Your task to perform on an android device: change text size in settings app Image 0: 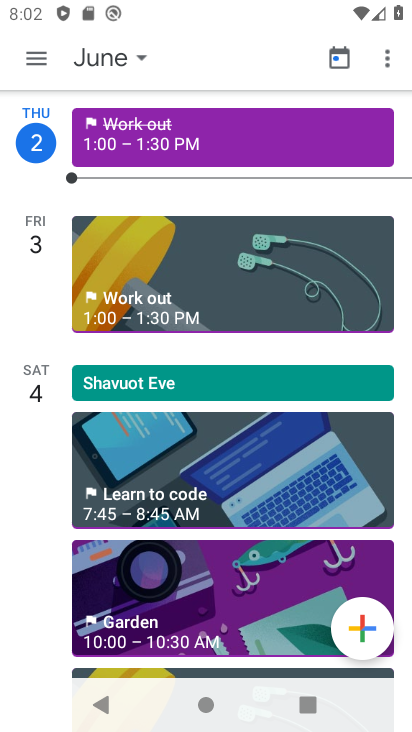
Step 0: click (252, 95)
Your task to perform on an android device: change text size in settings app Image 1: 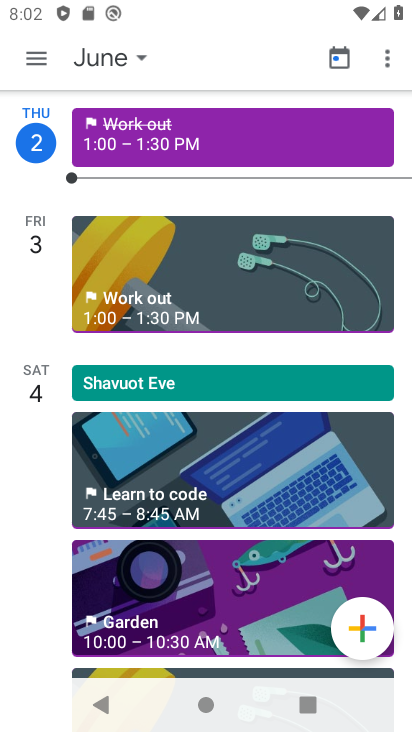
Step 1: press back button
Your task to perform on an android device: change text size in settings app Image 2: 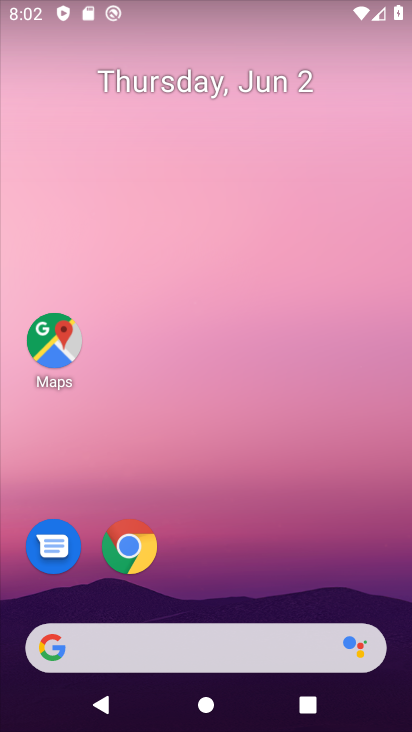
Step 2: drag from (268, 710) to (225, 196)
Your task to perform on an android device: change text size in settings app Image 3: 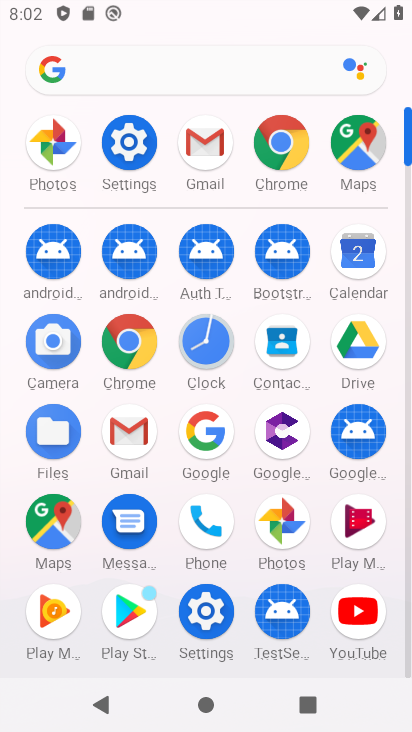
Step 3: click (116, 135)
Your task to perform on an android device: change text size in settings app Image 4: 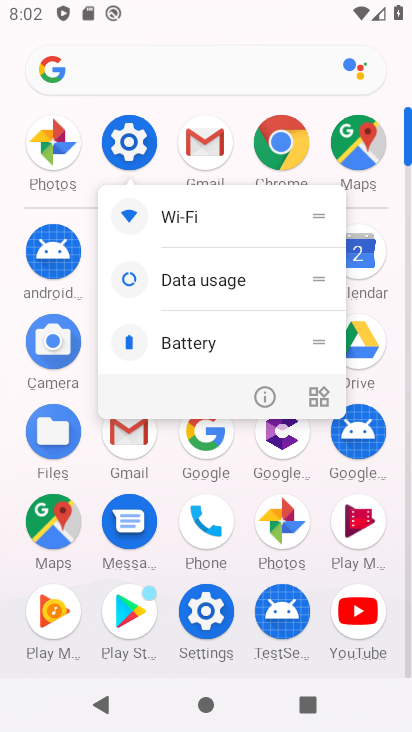
Step 4: click (115, 135)
Your task to perform on an android device: change text size in settings app Image 5: 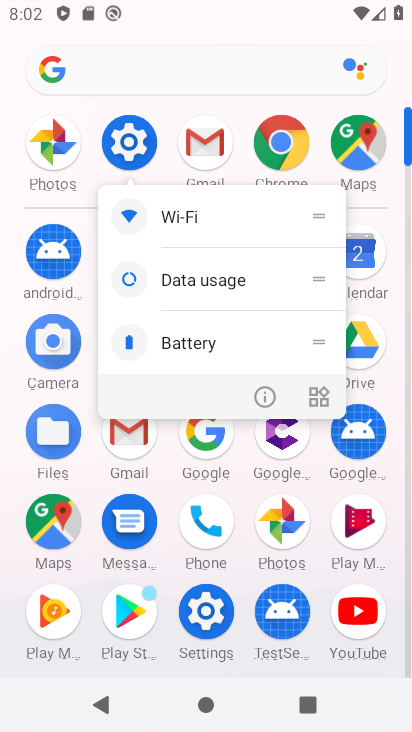
Step 5: click (115, 135)
Your task to perform on an android device: change text size in settings app Image 6: 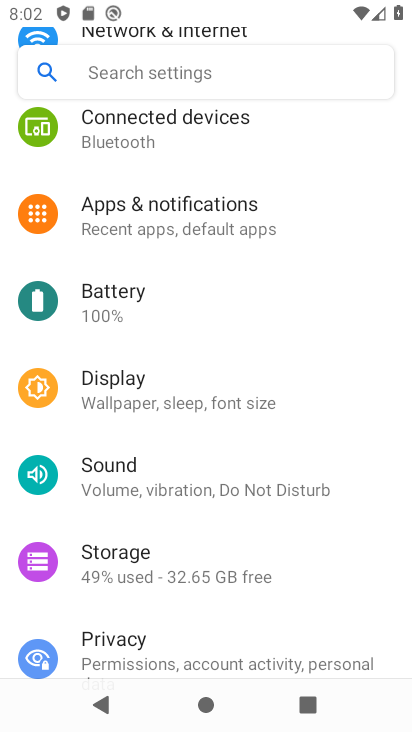
Step 6: click (114, 135)
Your task to perform on an android device: change text size in settings app Image 7: 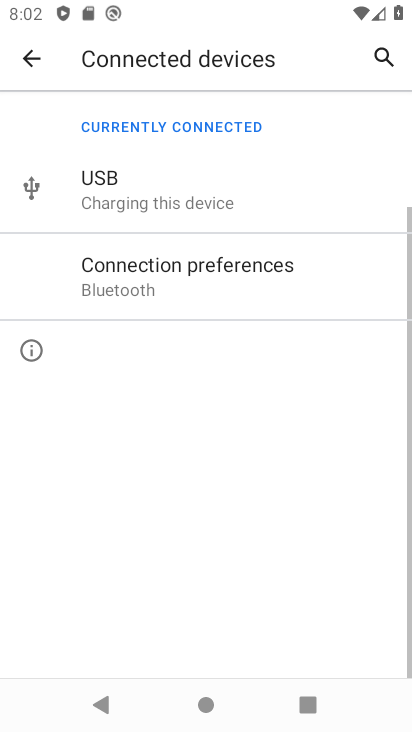
Step 7: click (34, 60)
Your task to perform on an android device: change text size in settings app Image 8: 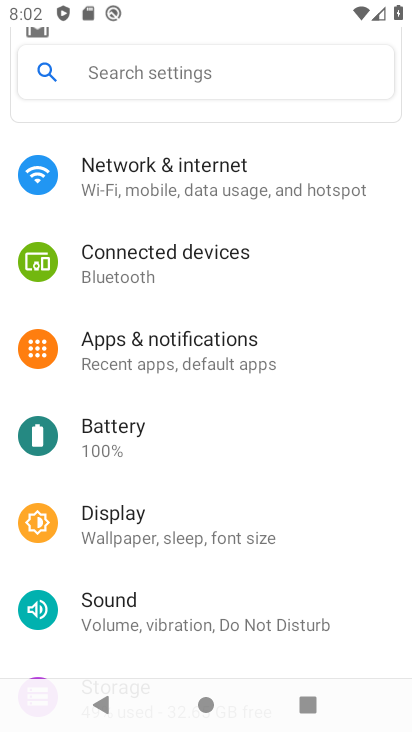
Step 8: click (113, 499)
Your task to perform on an android device: change text size in settings app Image 9: 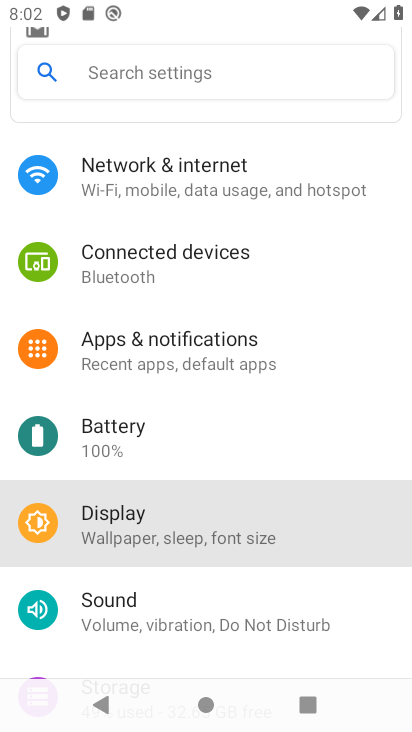
Step 9: click (123, 524)
Your task to perform on an android device: change text size in settings app Image 10: 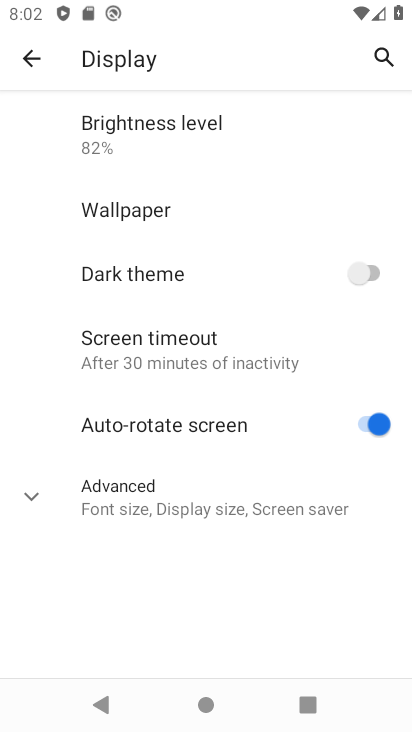
Step 10: click (119, 486)
Your task to perform on an android device: change text size in settings app Image 11: 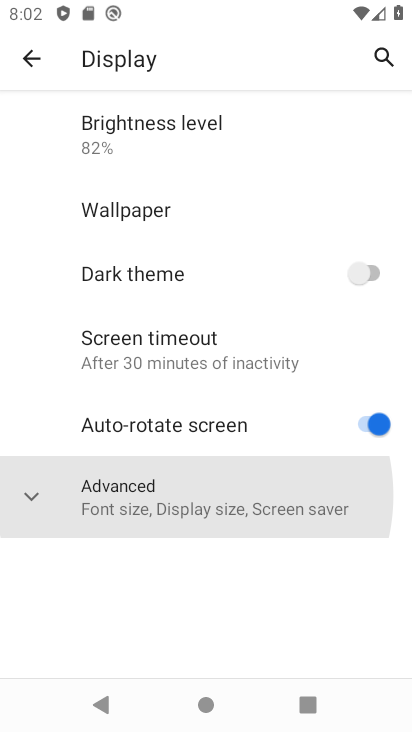
Step 11: click (118, 487)
Your task to perform on an android device: change text size in settings app Image 12: 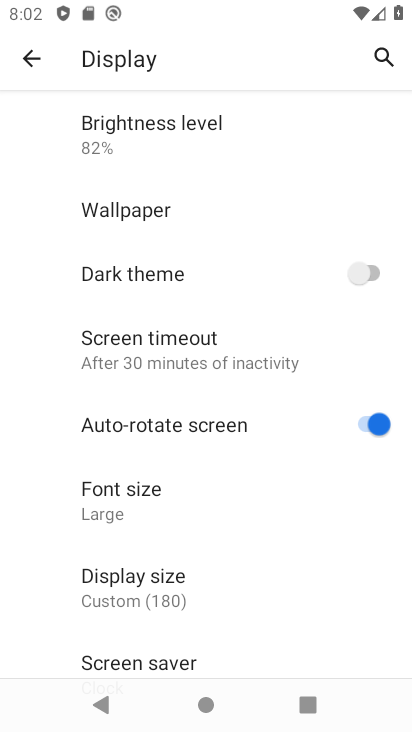
Step 12: click (106, 496)
Your task to perform on an android device: change text size in settings app Image 13: 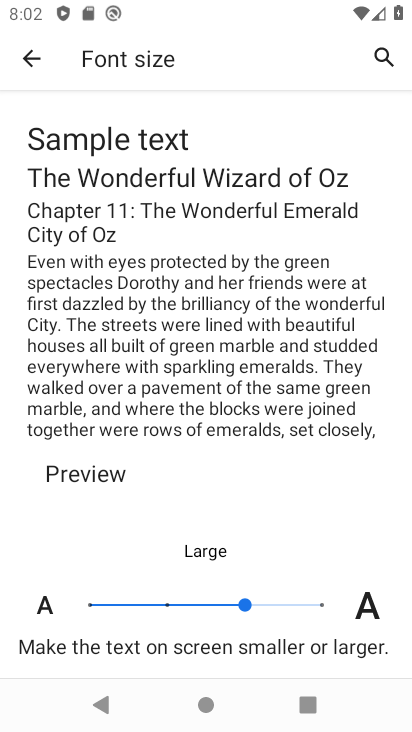
Step 13: click (318, 605)
Your task to perform on an android device: change text size in settings app Image 14: 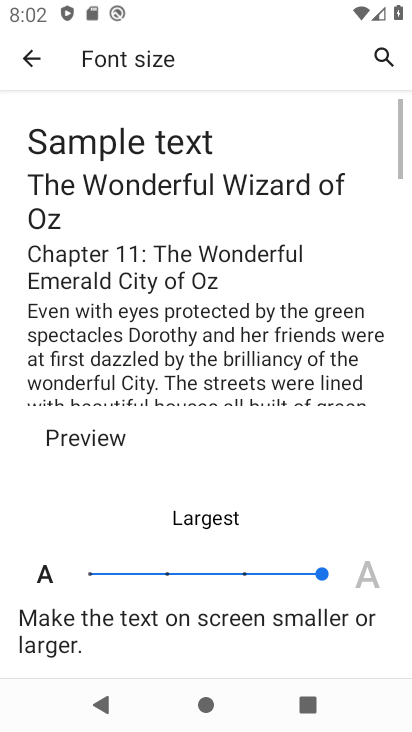
Step 14: task complete